Your task to perform on an android device: all mails in gmail Image 0: 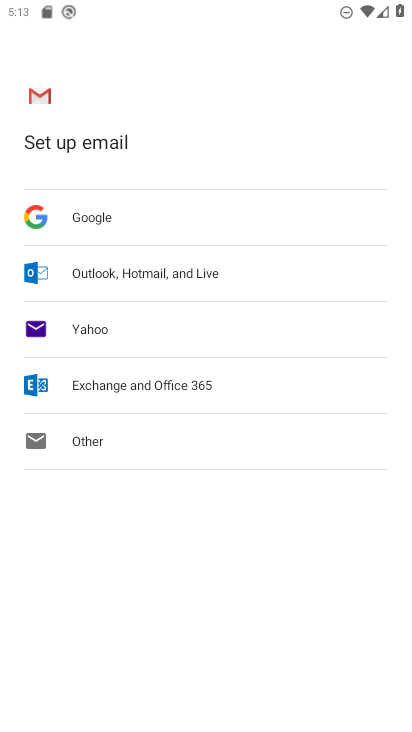
Step 0: press home button
Your task to perform on an android device: all mails in gmail Image 1: 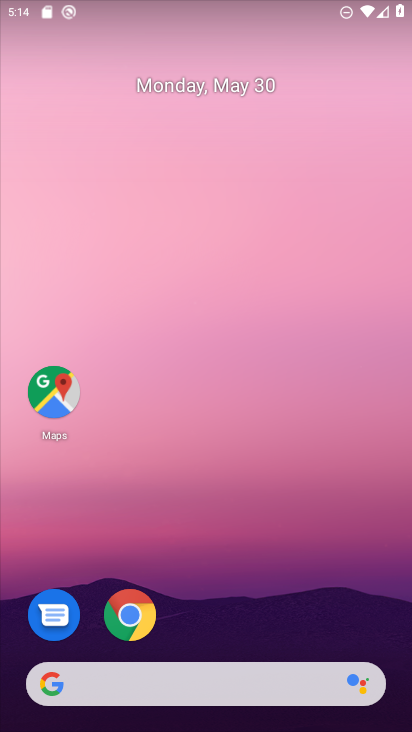
Step 1: drag from (176, 660) to (187, 5)
Your task to perform on an android device: all mails in gmail Image 2: 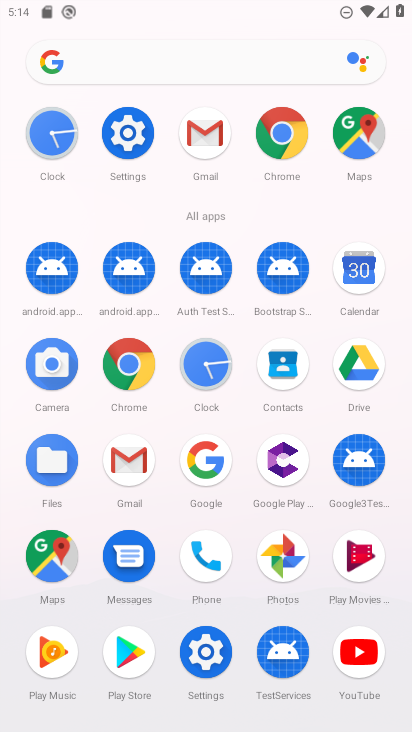
Step 2: click (199, 126)
Your task to perform on an android device: all mails in gmail Image 3: 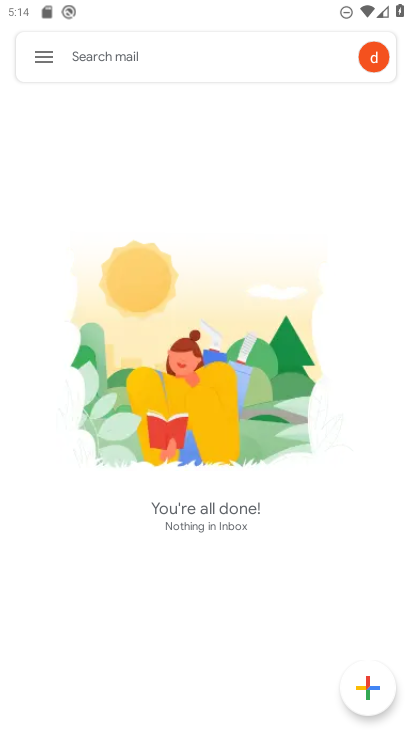
Step 3: click (45, 50)
Your task to perform on an android device: all mails in gmail Image 4: 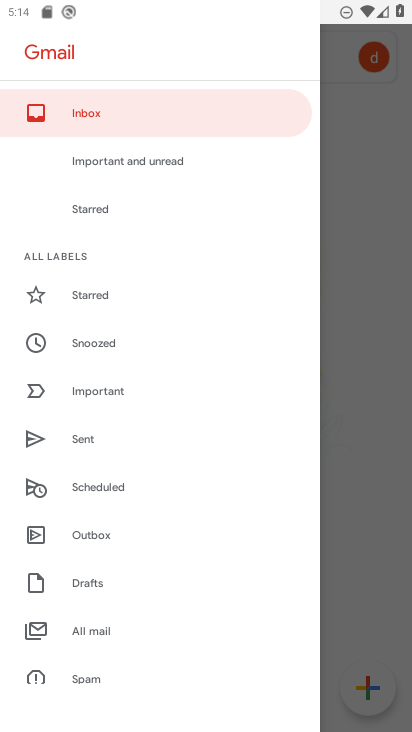
Step 4: click (71, 624)
Your task to perform on an android device: all mails in gmail Image 5: 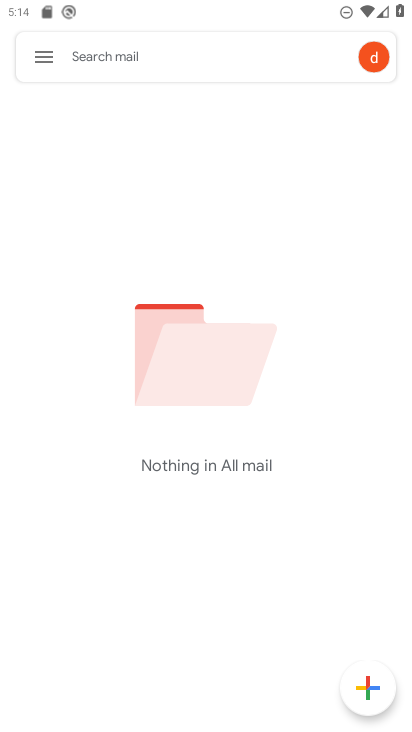
Step 5: task complete